Your task to perform on an android device: turn on sleep mode Image 0: 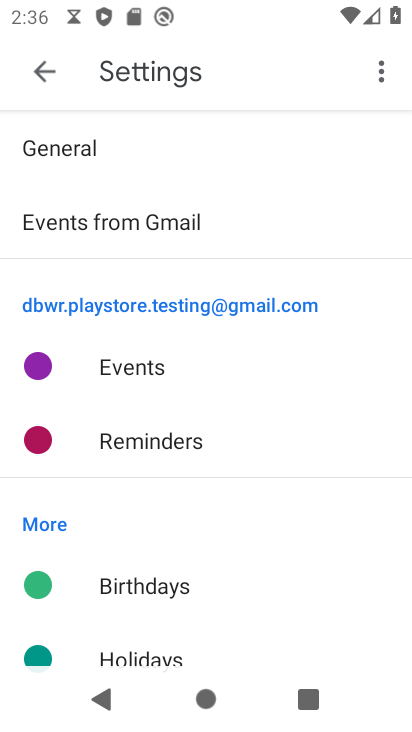
Step 0: press home button
Your task to perform on an android device: turn on sleep mode Image 1: 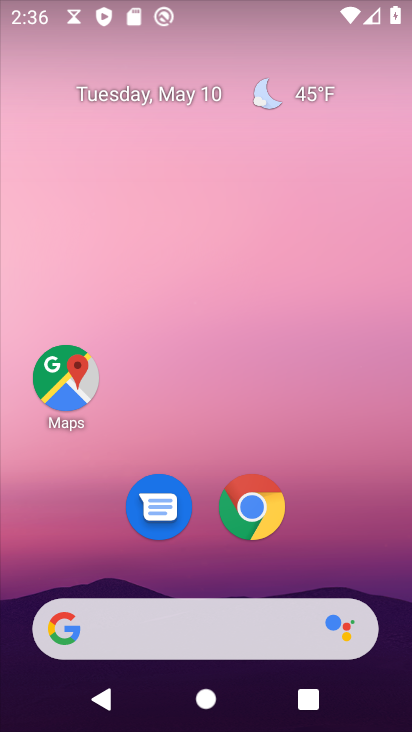
Step 1: drag from (214, 551) to (203, 167)
Your task to perform on an android device: turn on sleep mode Image 2: 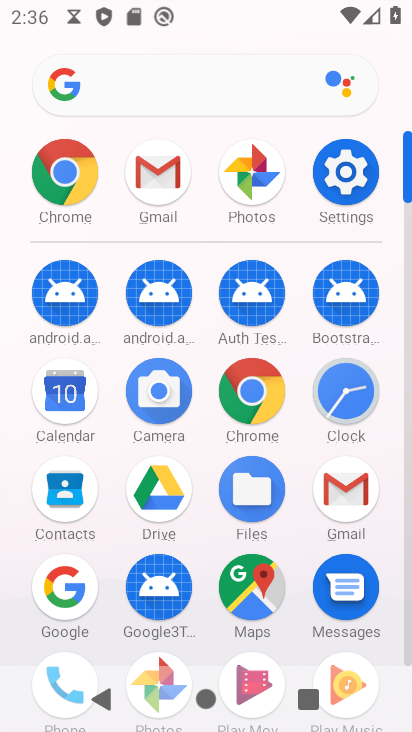
Step 2: click (349, 178)
Your task to perform on an android device: turn on sleep mode Image 3: 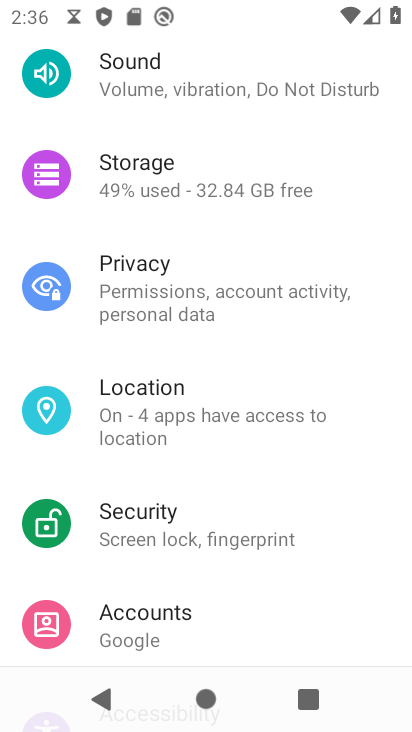
Step 3: drag from (191, 169) to (182, 483)
Your task to perform on an android device: turn on sleep mode Image 4: 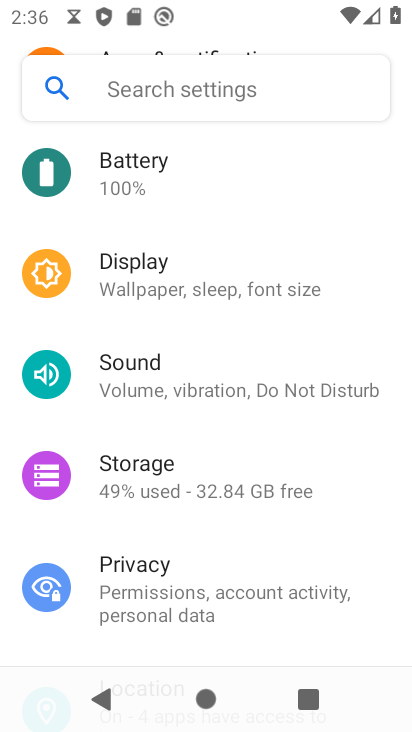
Step 4: click (162, 297)
Your task to perform on an android device: turn on sleep mode Image 5: 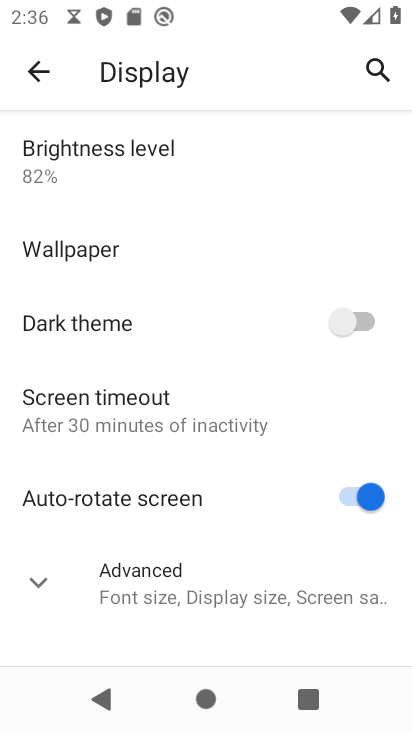
Step 5: drag from (181, 626) to (186, 339)
Your task to perform on an android device: turn on sleep mode Image 6: 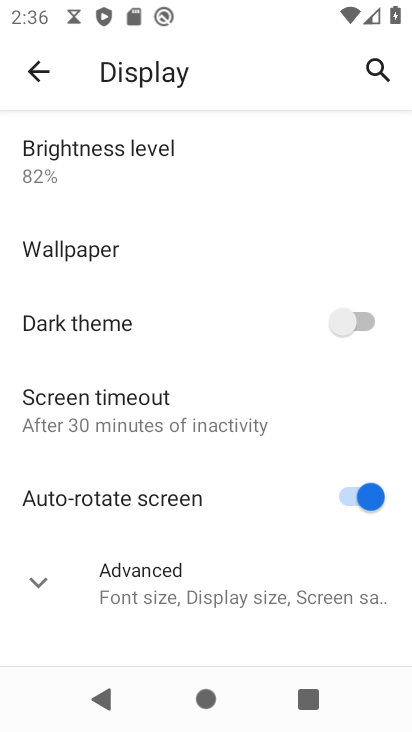
Step 6: click (165, 584)
Your task to perform on an android device: turn on sleep mode Image 7: 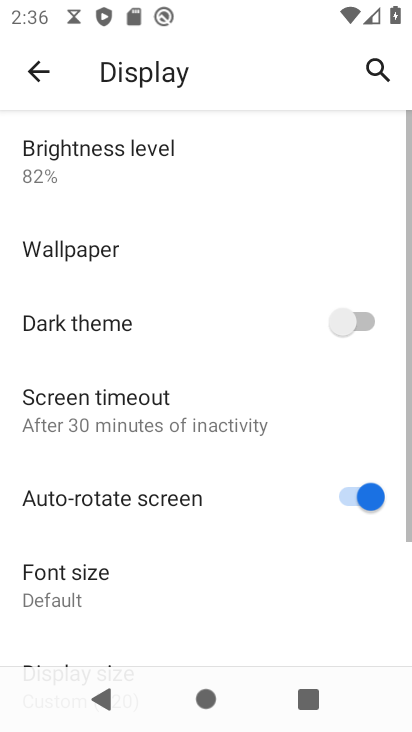
Step 7: task complete